Your task to perform on an android device: turn on javascript in the chrome app Image 0: 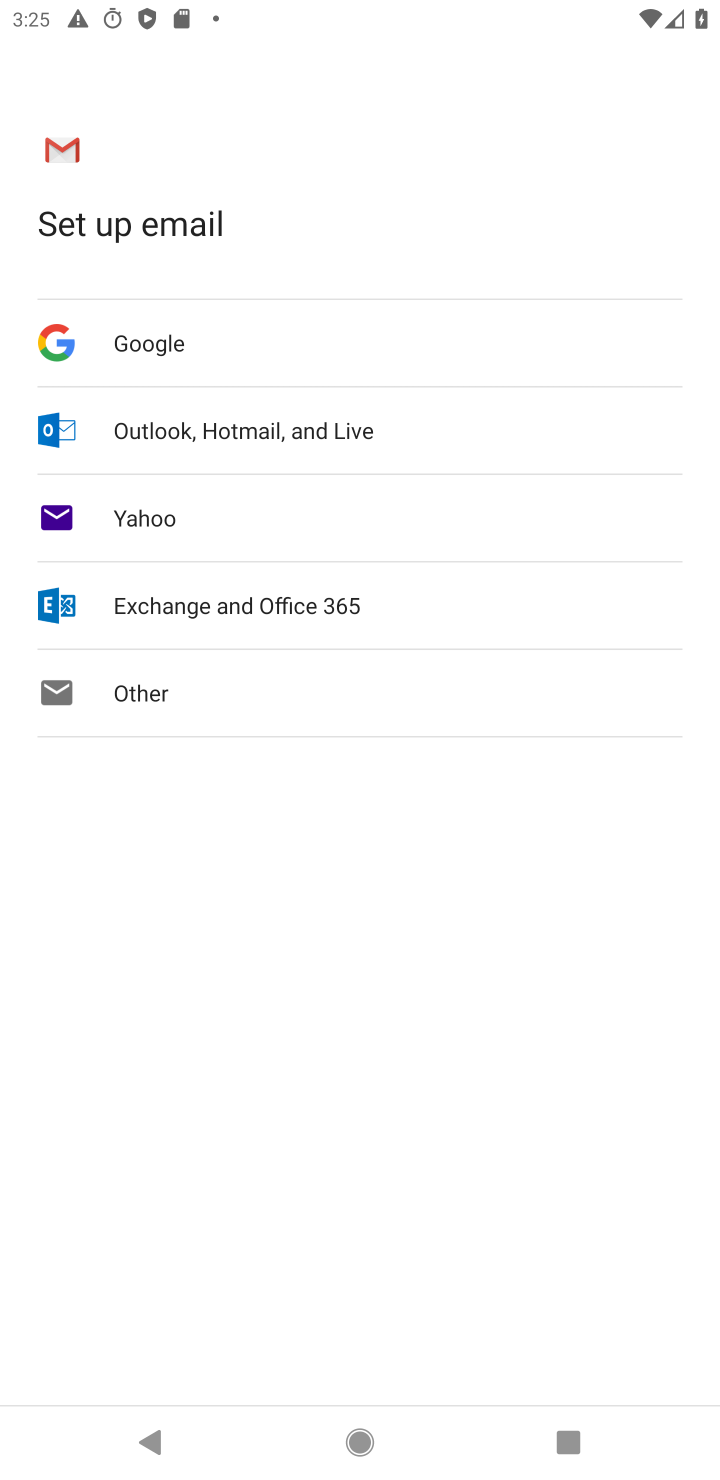
Step 0: press home button
Your task to perform on an android device: turn on javascript in the chrome app Image 1: 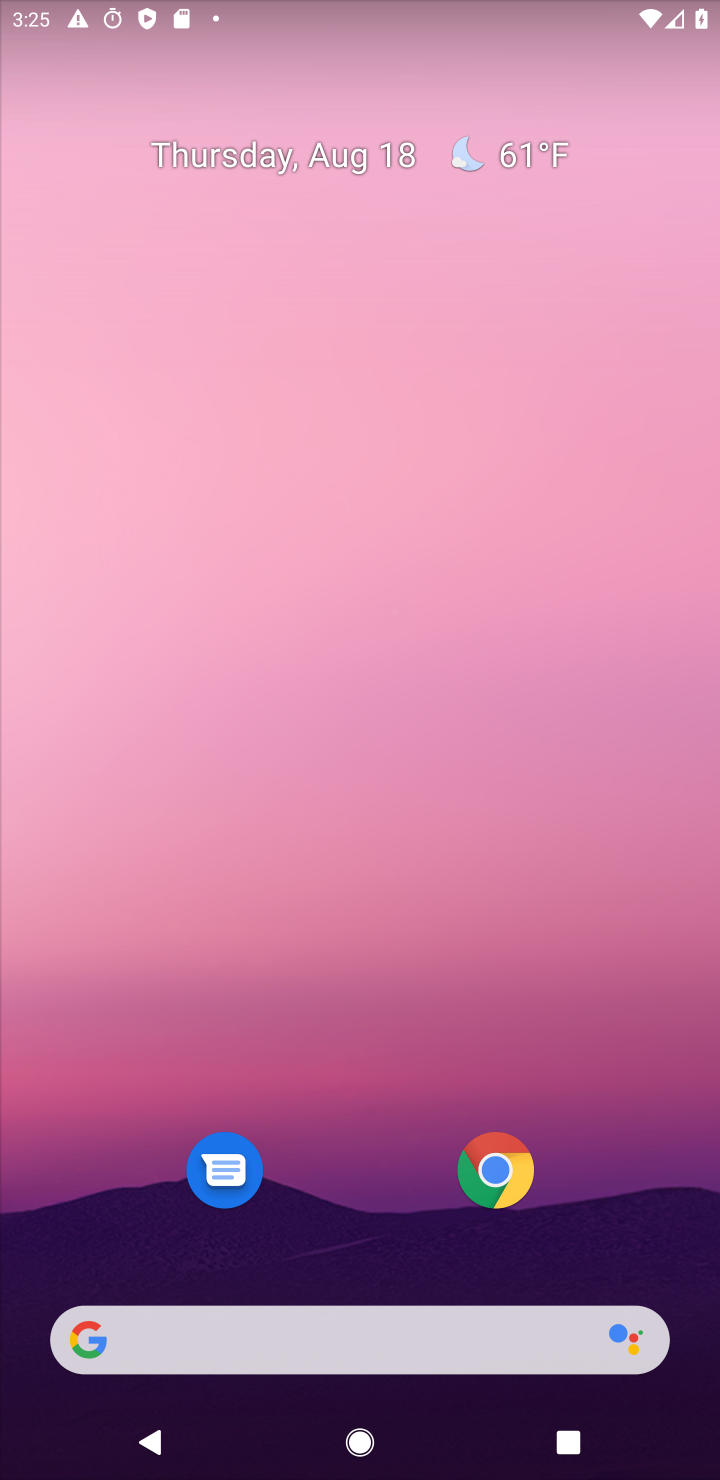
Step 1: click (506, 1151)
Your task to perform on an android device: turn on javascript in the chrome app Image 2: 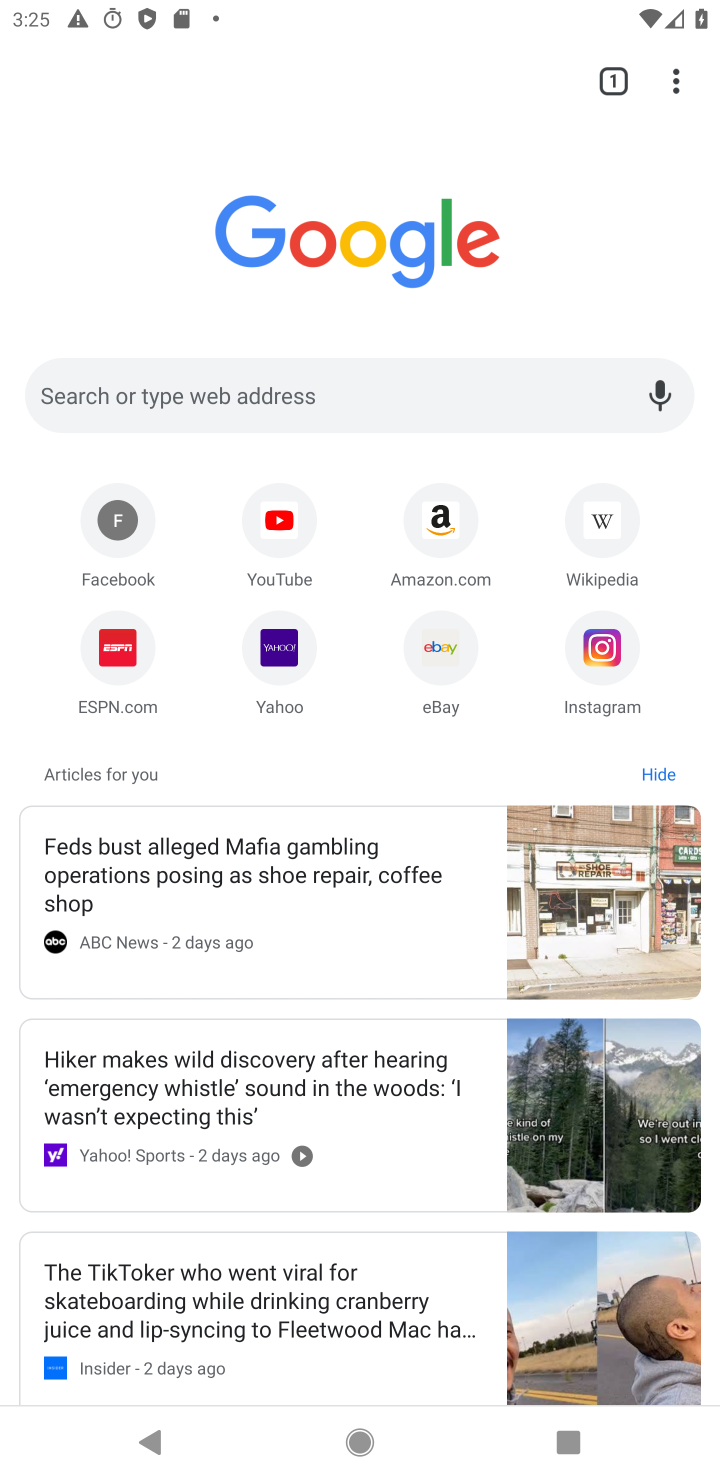
Step 2: click (678, 75)
Your task to perform on an android device: turn on javascript in the chrome app Image 3: 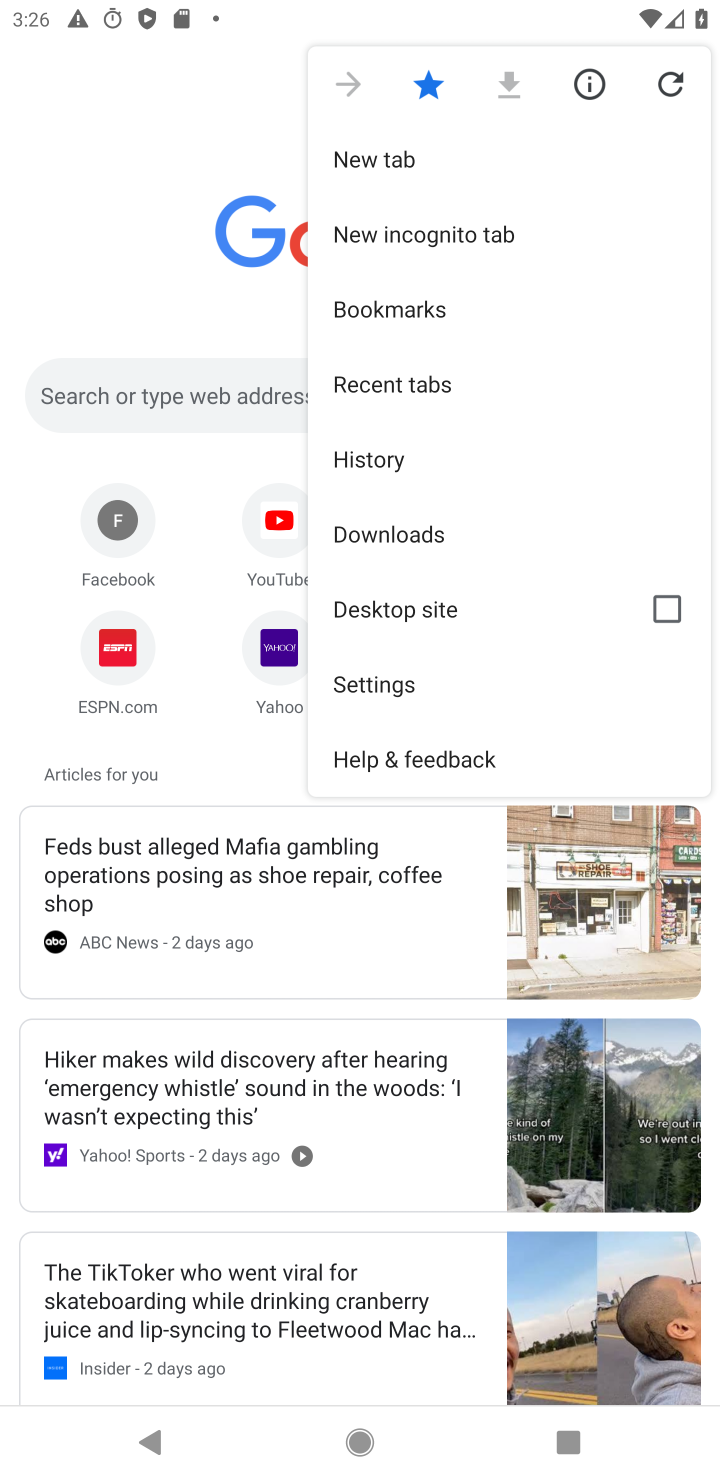
Step 3: click (362, 683)
Your task to perform on an android device: turn on javascript in the chrome app Image 4: 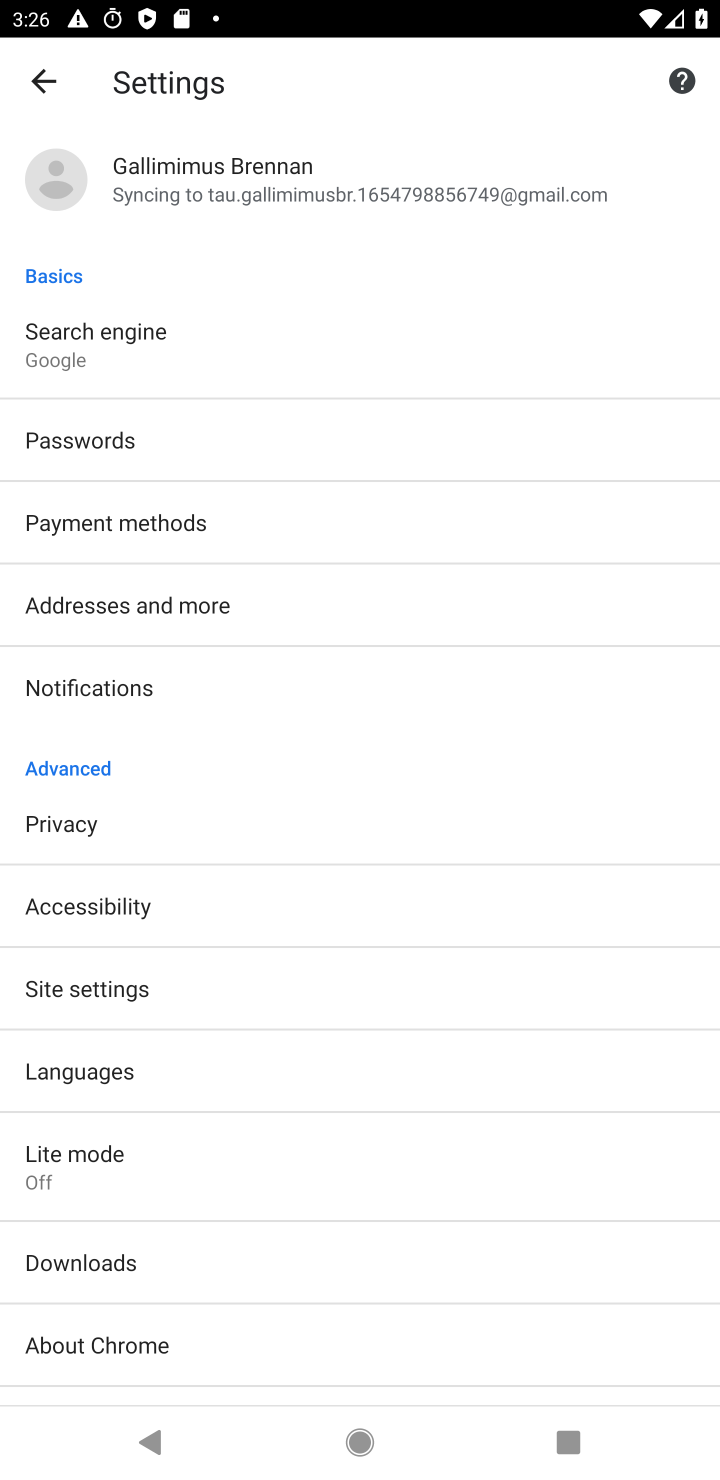
Step 4: click (96, 987)
Your task to perform on an android device: turn on javascript in the chrome app Image 5: 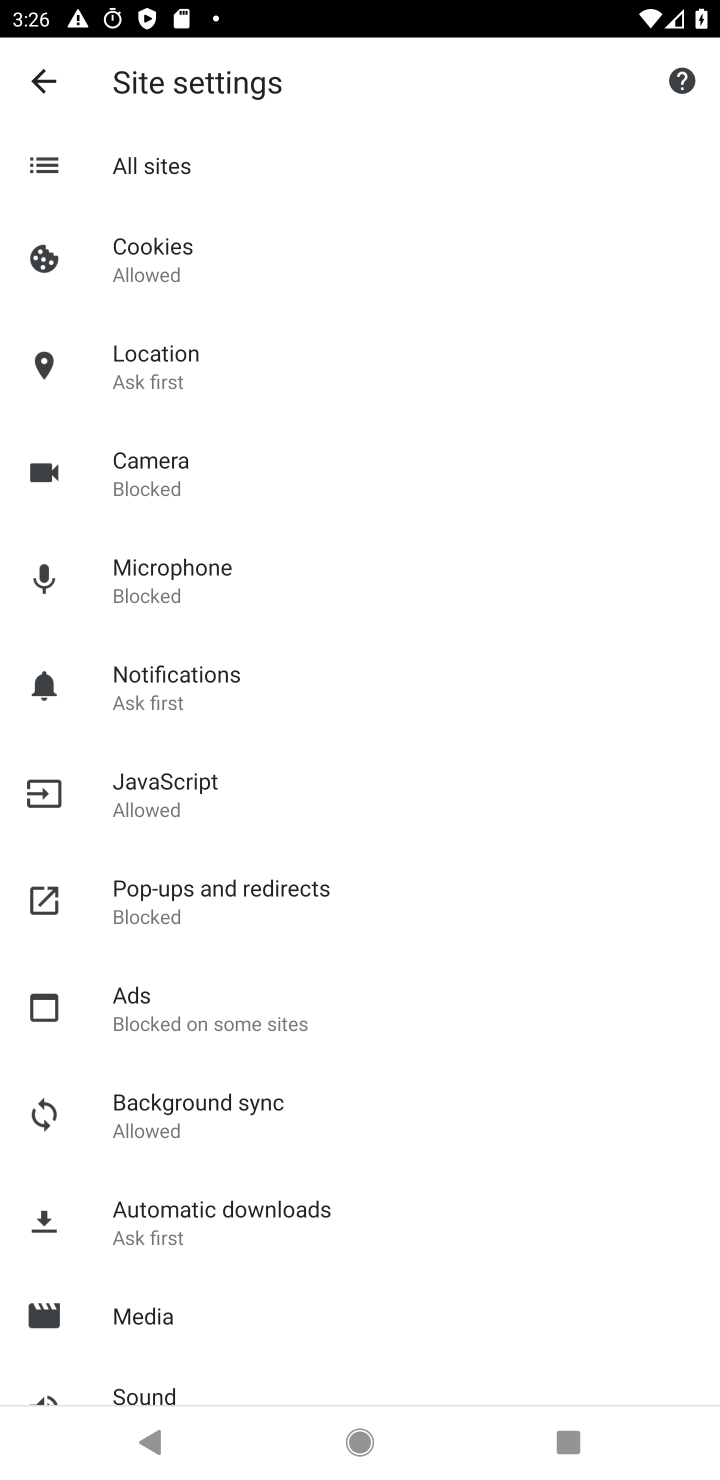
Step 5: click (155, 819)
Your task to perform on an android device: turn on javascript in the chrome app Image 6: 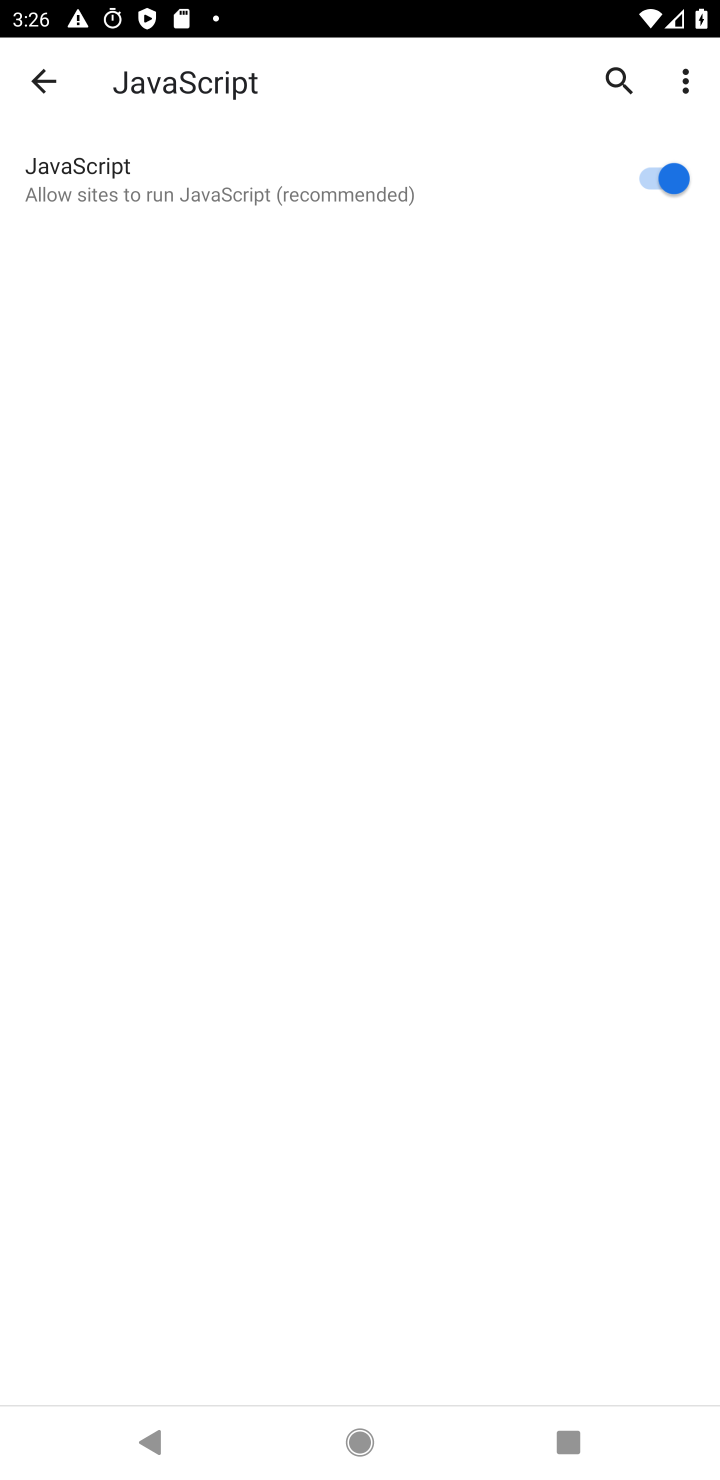
Step 6: task complete